Your task to perform on an android device: Open eBay Image 0: 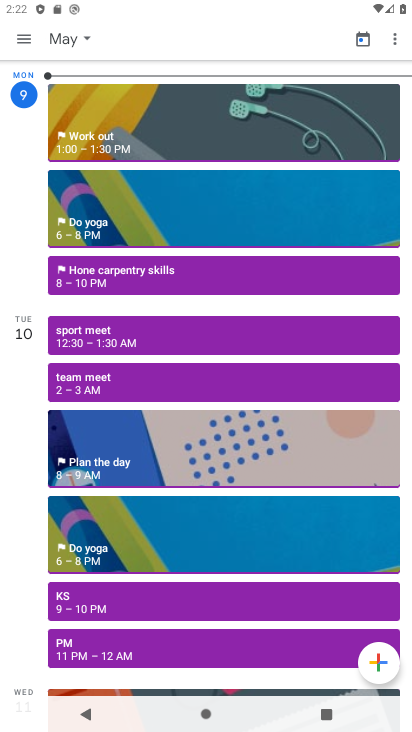
Step 0: press home button
Your task to perform on an android device: Open eBay Image 1: 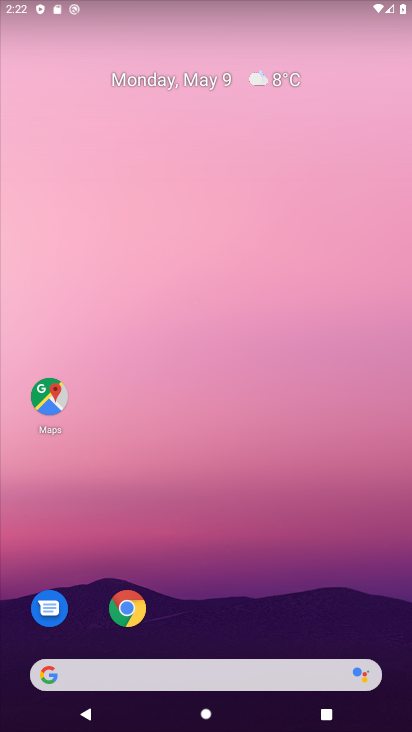
Step 1: click (127, 606)
Your task to perform on an android device: Open eBay Image 2: 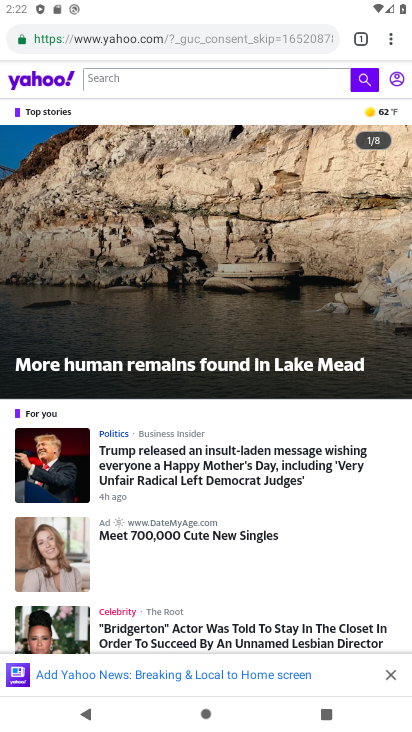
Step 2: click (103, 39)
Your task to perform on an android device: Open eBay Image 3: 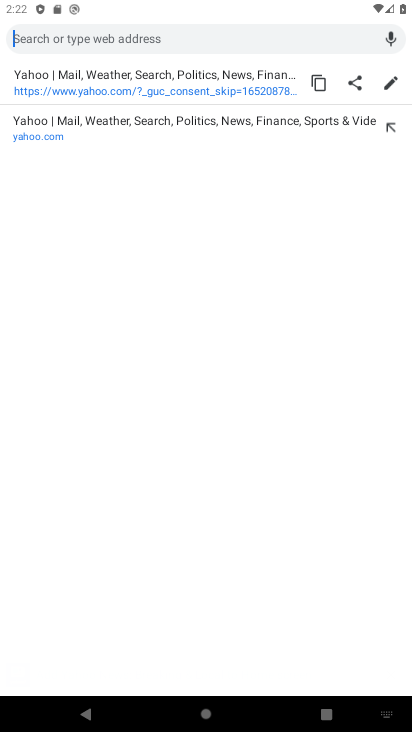
Step 3: type "eBay"
Your task to perform on an android device: Open eBay Image 4: 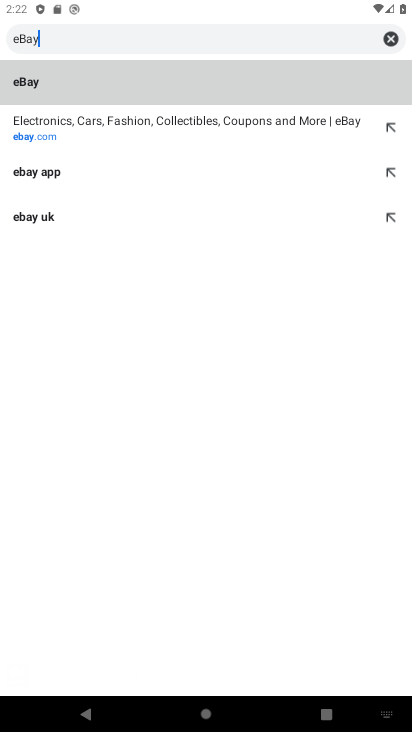
Step 4: click (221, 81)
Your task to perform on an android device: Open eBay Image 5: 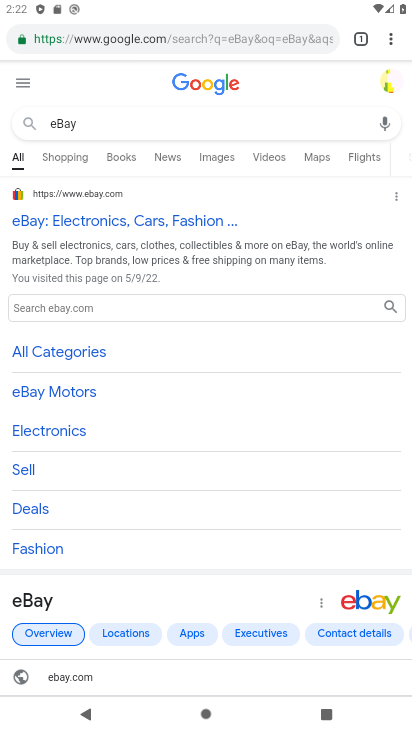
Step 5: task complete